Your task to perform on an android device: turn vacation reply on in the gmail app Image 0: 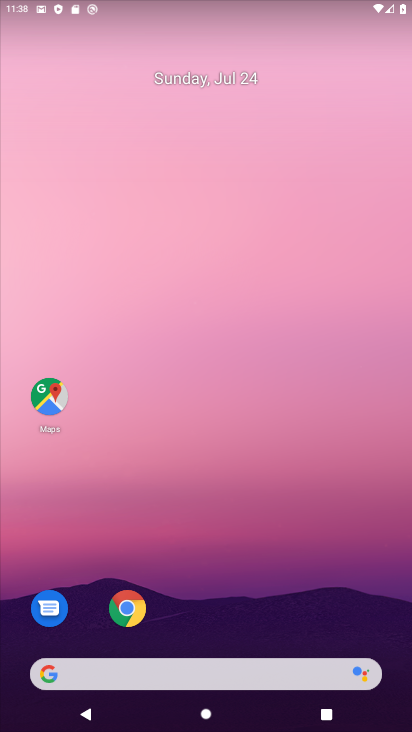
Step 0: click (193, 136)
Your task to perform on an android device: turn vacation reply on in the gmail app Image 1: 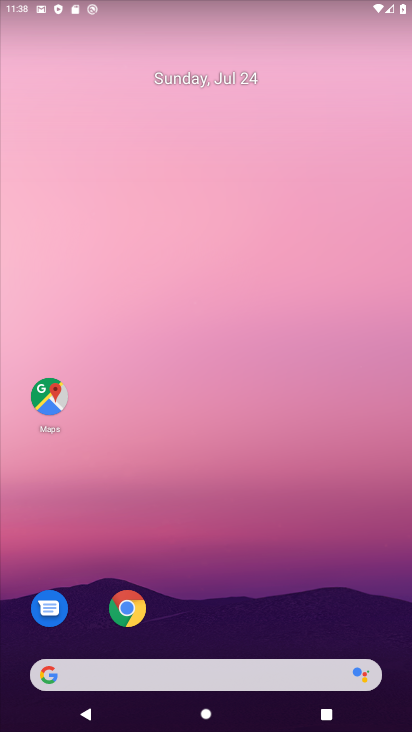
Step 1: click (162, 159)
Your task to perform on an android device: turn vacation reply on in the gmail app Image 2: 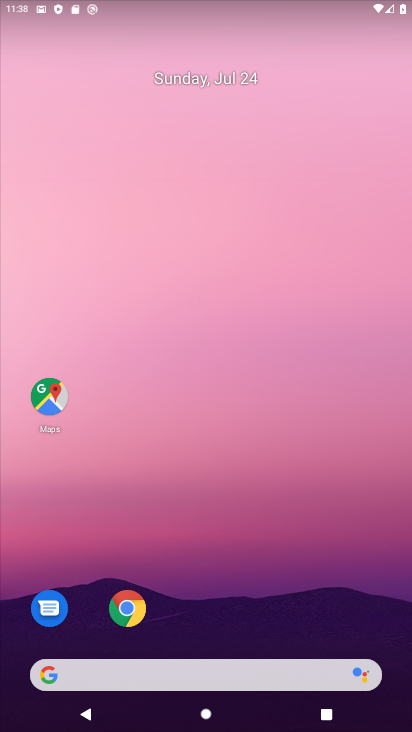
Step 2: drag from (189, 636) to (198, 174)
Your task to perform on an android device: turn vacation reply on in the gmail app Image 3: 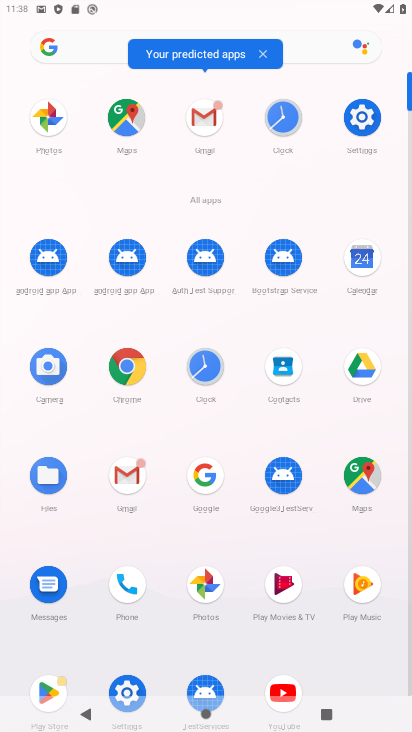
Step 3: click (218, 122)
Your task to perform on an android device: turn vacation reply on in the gmail app Image 4: 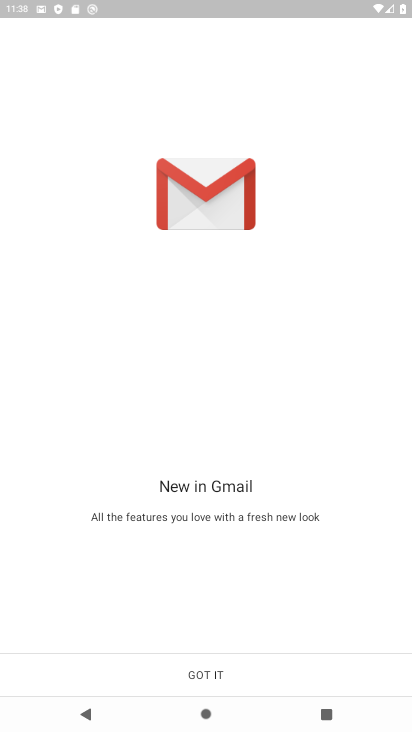
Step 4: click (285, 664)
Your task to perform on an android device: turn vacation reply on in the gmail app Image 5: 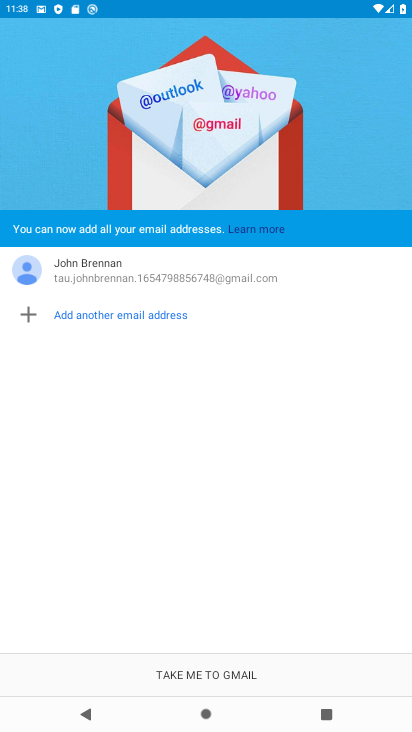
Step 5: click (243, 662)
Your task to perform on an android device: turn vacation reply on in the gmail app Image 6: 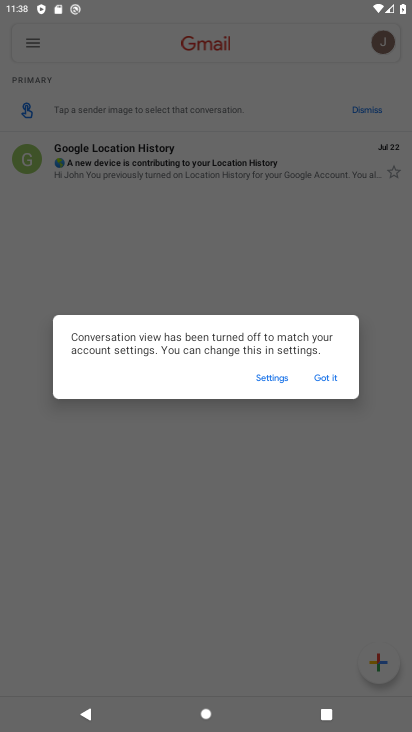
Step 6: click (328, 377)
Your task to perform on an android device: turn vacation reply on in the gmail app Image 7: 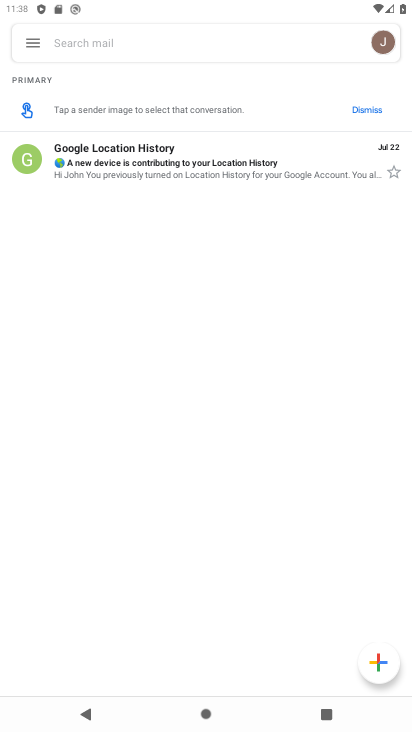
Step 7: click (42, 56)
Your task to perform on an android device: turn vacation reply on in the gmail app Image 8: 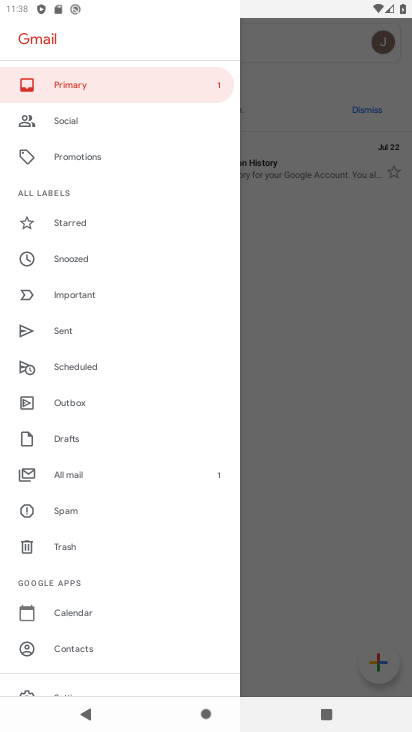
Step 8: drag from (108, 659) to (81, 436)
Your task to perform on an android device: turn vacation reply on in the gmail app Image 9: 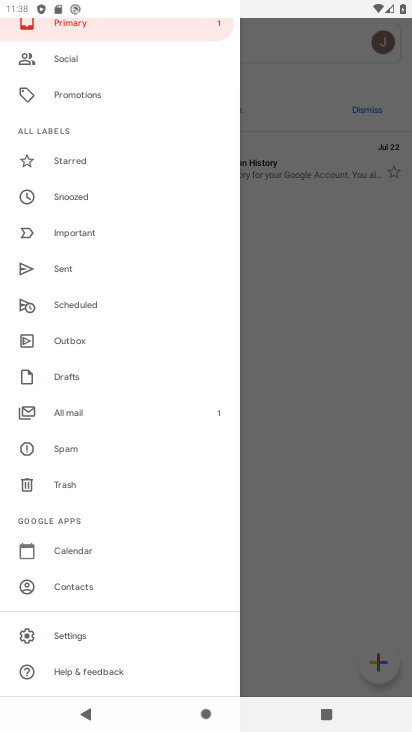
Step 9: click (92, 639)
Your task to perform on an android device: turn vacation reply on in the gmail app Image 10: 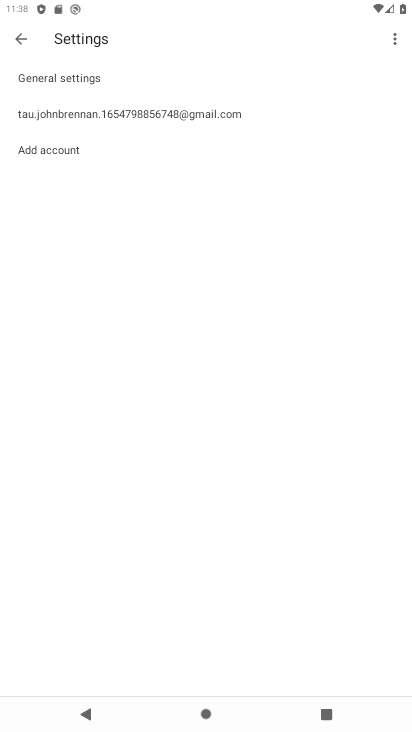
Step 10: click (127, 112)
Your task to perform on an android device: turn vacation reply on in the gmail app Image 11: 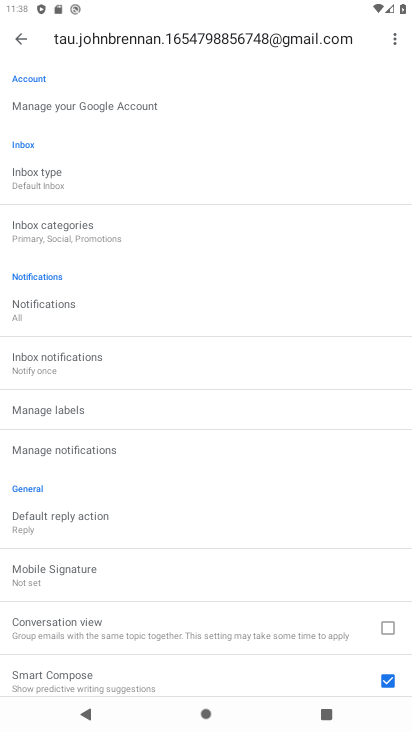
Step 11: drag from (115, 619) to (101, 321)
Your task to perform on an android device: turn vacation reply on in the gmail app Image 12: 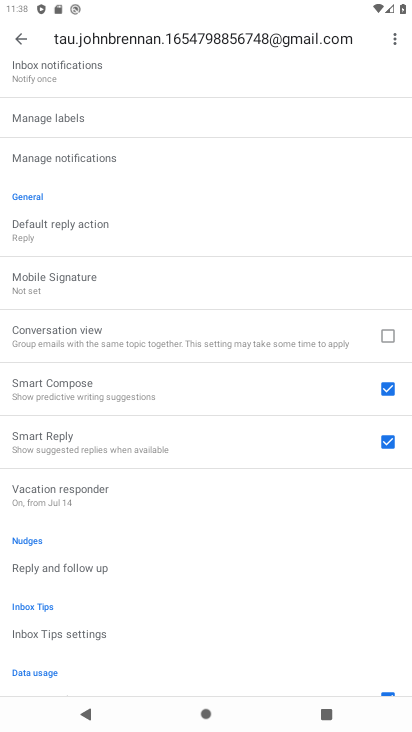
Step 12: click (96, 501)
Your task to perform on an android device: turn vacation reply on in the gmail app Image 13: 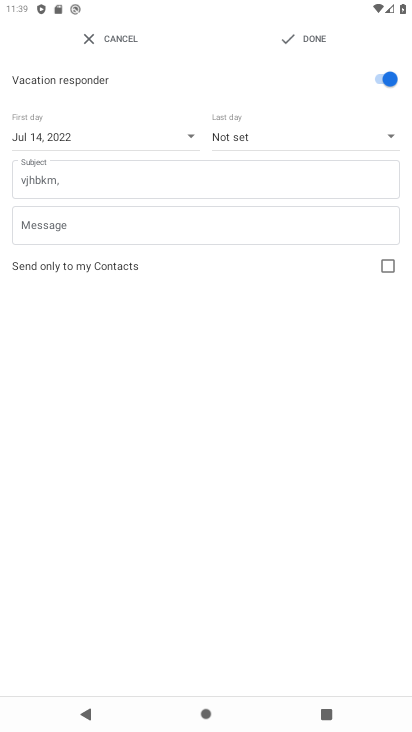
Step 13: task complete